Your task to perform on an android device: remove spam from my inbox in the gmail app Image 0: 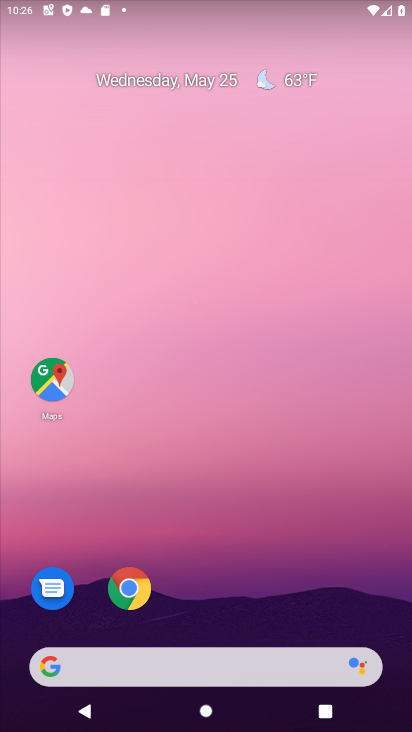
Step 0: drag from (301, 639) to (251, 122)
Your task to perform on an android device: remove spam from my inbox in the gmail app Image 1: 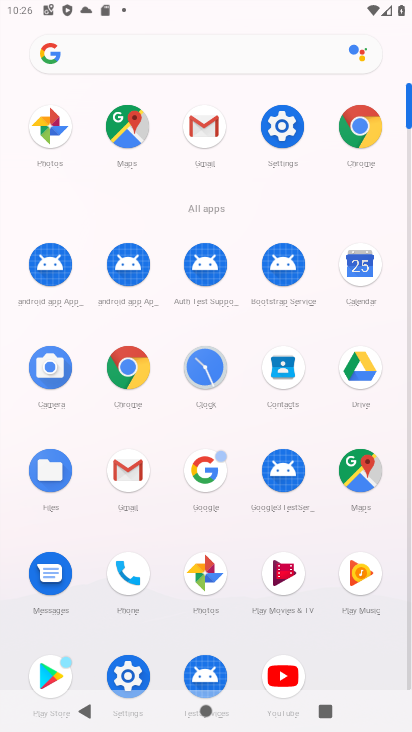
Step 1: click (134, 467)
Your task to perform on an android device: remove spam from my inbox in the gmail app Image 2: 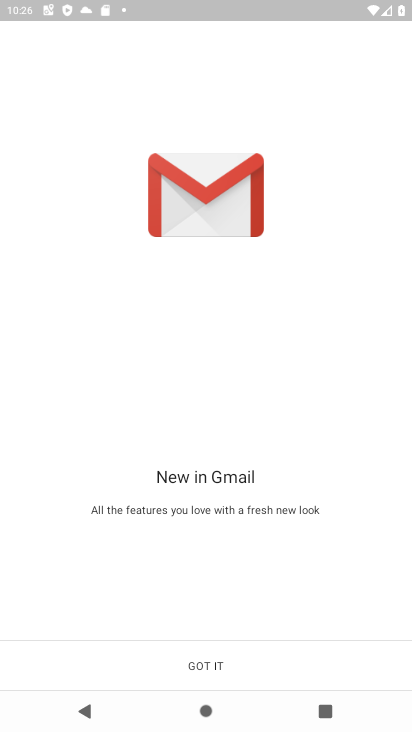
Step 2: click (192, 673)
Your task to perform on an android device: remove spam from my inbox in the gmail app Image 3: 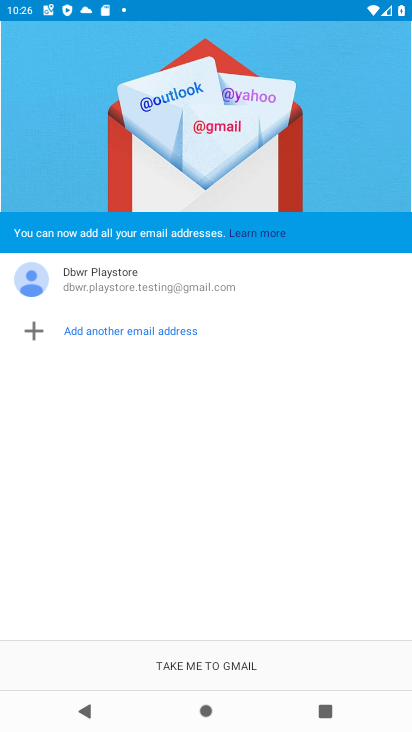
Step 3: click (202, 660)
Your task to perform on an android device: remove spam from my inbox in the gmail app Image 4: 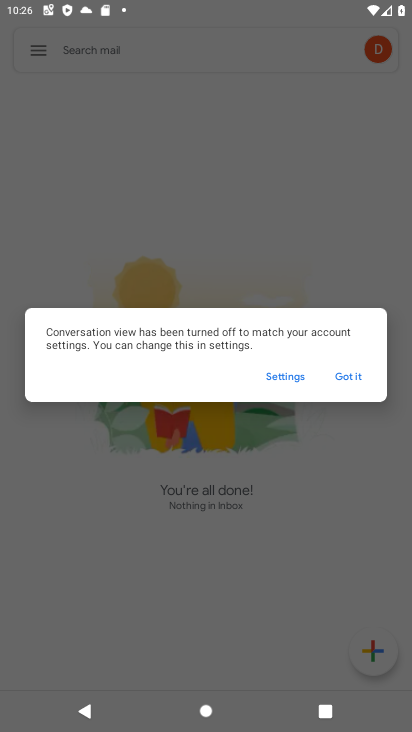
Step 4: click (346, 374)
Your task to perform on an android device: remove spam from my inbox in the gmail app Image 5: 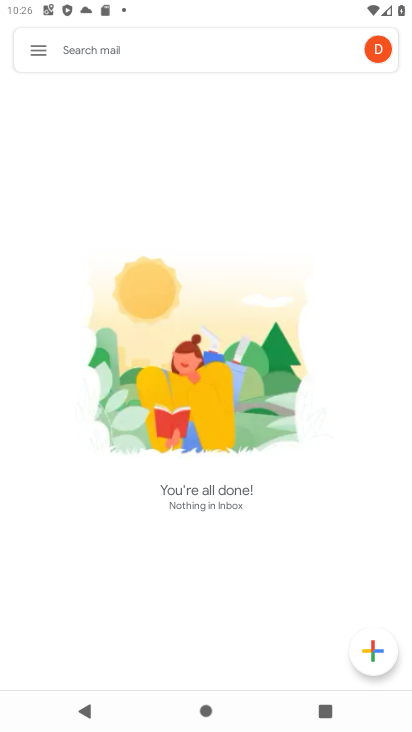
Step 5: click (41, 51)
Your task to perform on an android device: remove spam from my inbox in the gmail app Image 6: 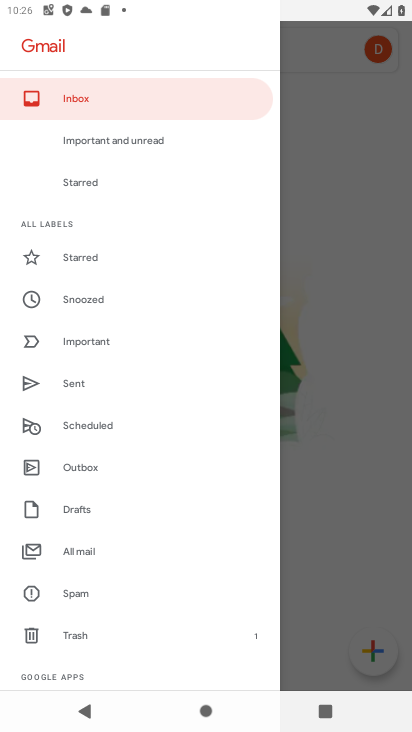
Step 6: click (103, 589)
Your task to perform on an android device: remove spam from my inbox in the gmail app Image 7: 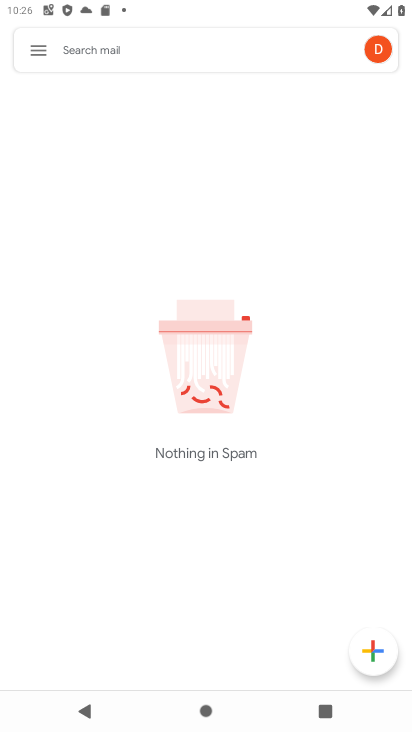
Step 7: task complete